Your task to perform on an android device: open chrome privacy settings Image 0: 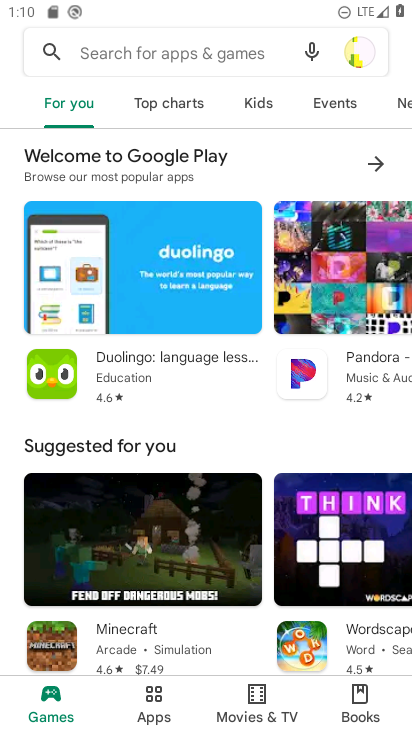
Step 0: press home button
Your task to perform on an android device: open chrome privacy settings Image 1: 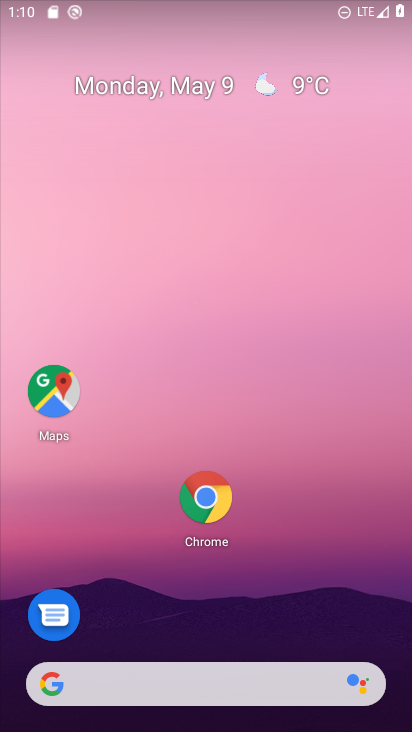
Step 1: drag from (319, 604) to (177, 201)
Your task to perform on an android device: open chrome privacy settings Image 2: 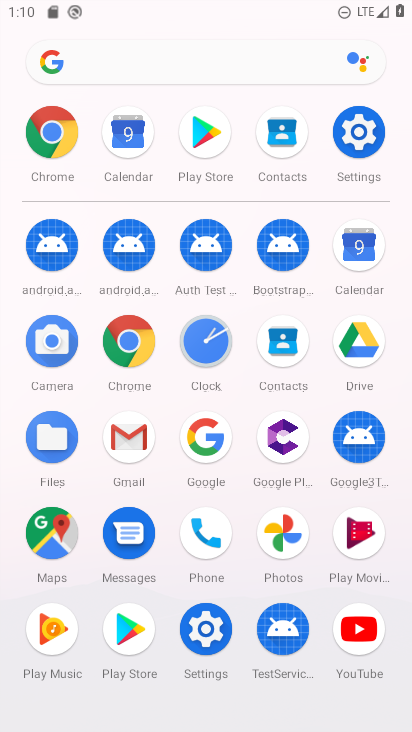
Step 2: click (133, 334)
Your task to perform on an android device: open chrome privacy settings Image 3: 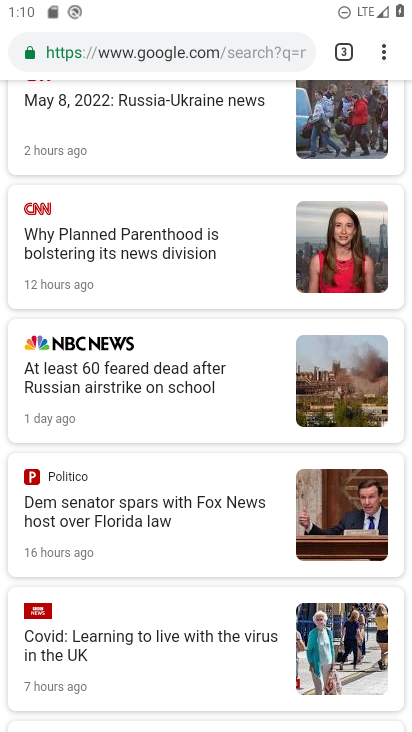
Step 3: drag from (380, 54) to (207, 595)
Your task to perform on an android device: open chrome privacy settings Image 4: 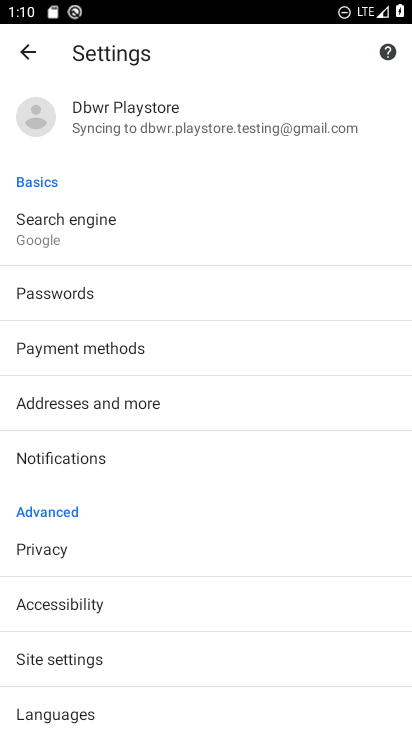
Step 4: drag from (171, 667) to (225, 125)
Your task to perform on an android device: open chrome privacy settings Image 5: 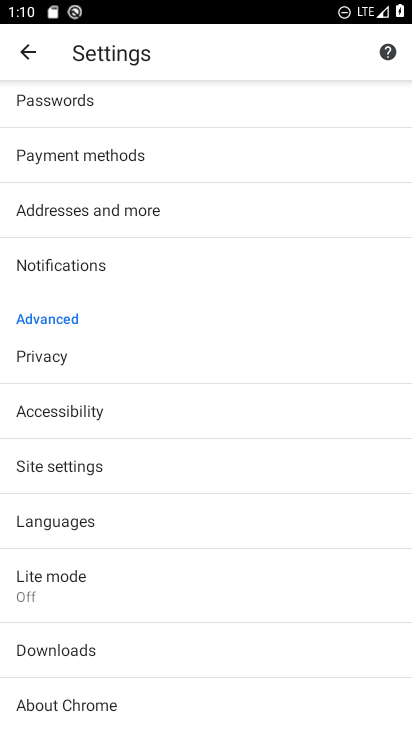
Step 5: click (139, 589)
Your task to perform on an android device: open chrome privacy settings Image 6: 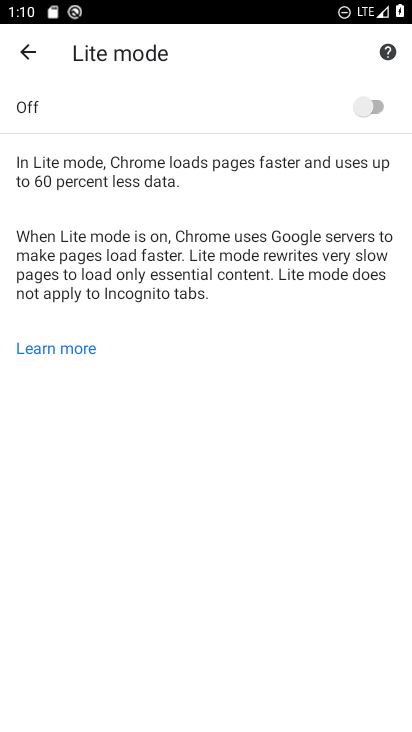
Step 6: click (27, 53)
Your task to perform on an android device: open chrome privacy settings Image 7: 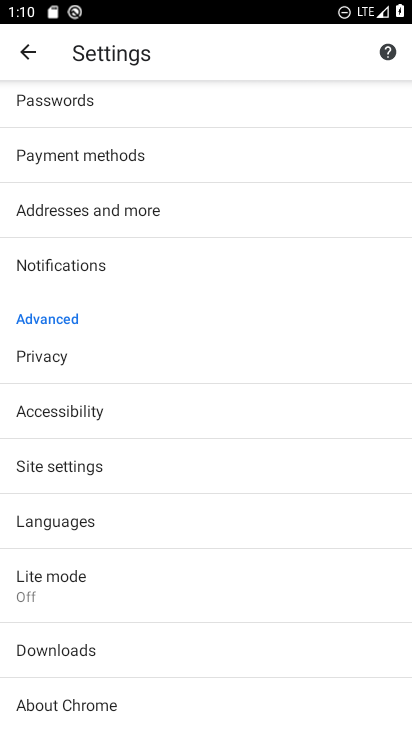
Step 7: click (80, 348)
Your task to perform on an android device: open chrome privacy settings Image 8: 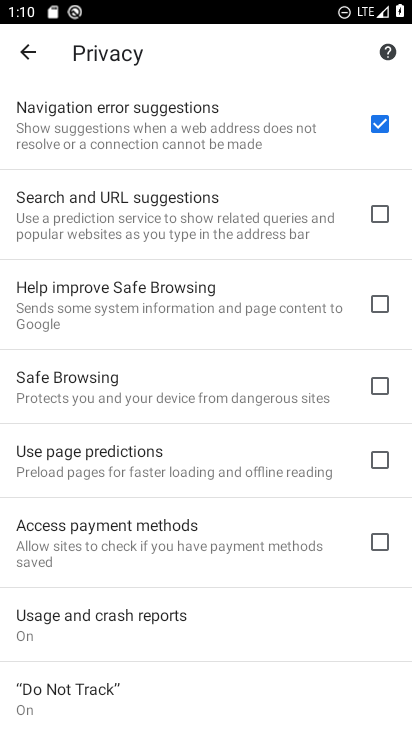
Step 8: task complete